Your task to perform on an android device: empty trash in the gmail app Image 0: 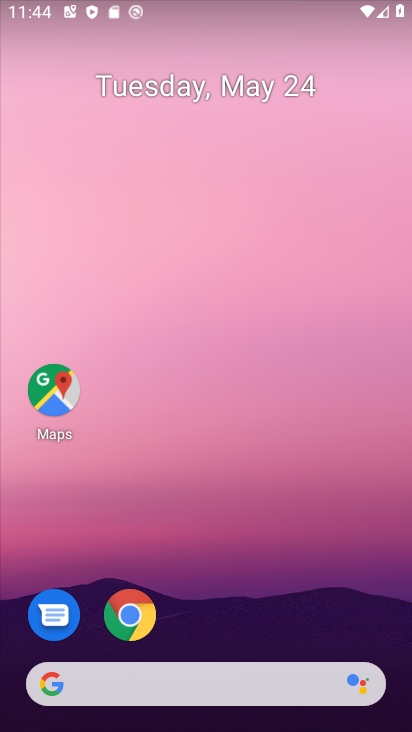
Step 0: drag from (275, 604) to (220, 218)
Your task to perform on an android device: empty trash in the gmail app Image 1: 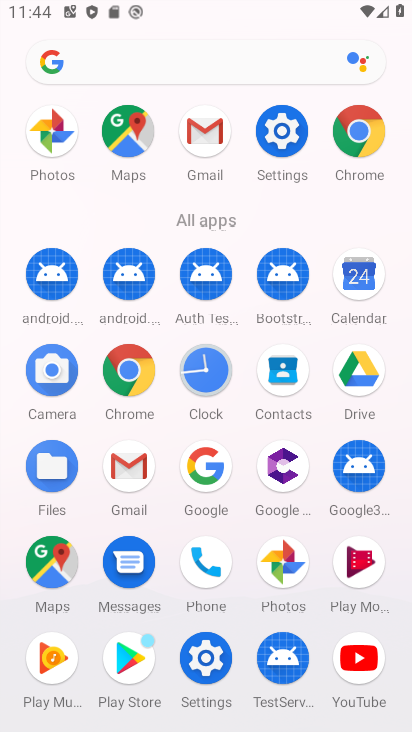
Step 1: click (202, 133)
Your task to perform on an android device: empty trash in the gmail app Image 2: 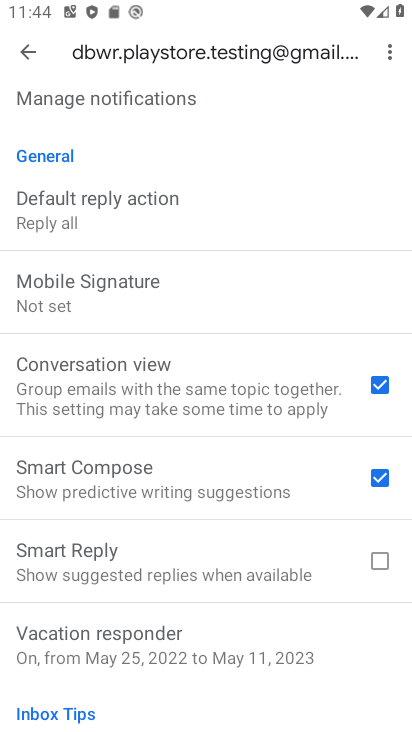
Step 2: press back button
Your task to perform on an android device: empty trash in the gmail app Image 3: 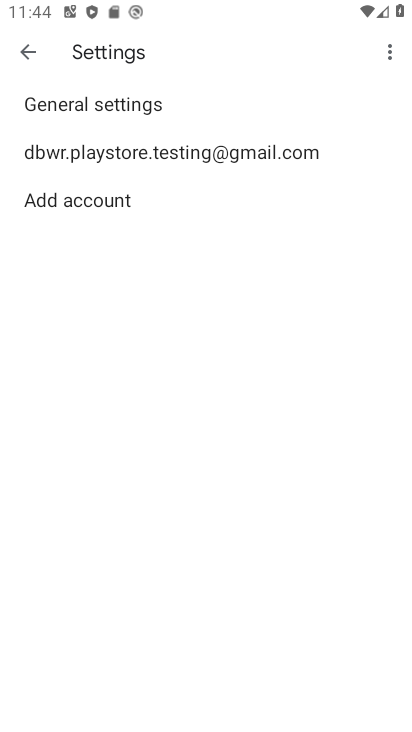
Step 3: press back button
Your task to perform on an android device: empty trash in the gmail app Image 4: 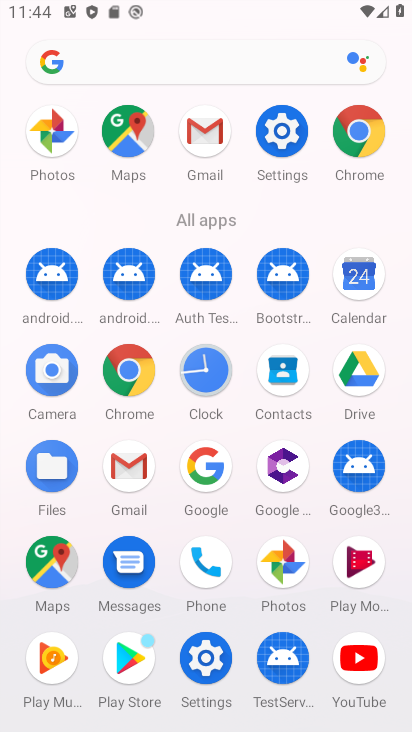
Step 4: click (203, 131)
Your task to perform on an android device: empty trash in the gmail app Image 5: 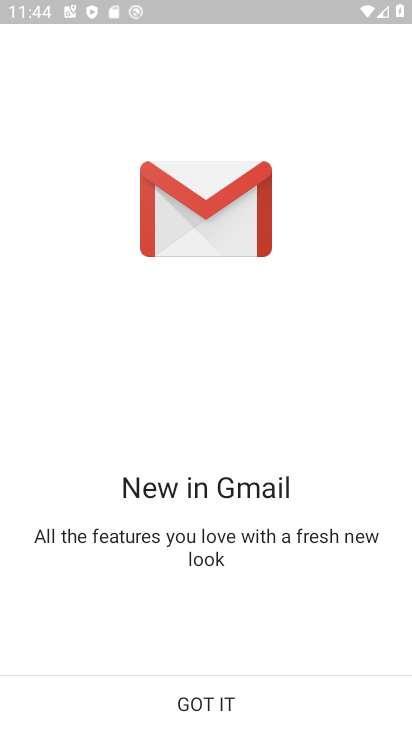
Step 5: click (219, 696)
Your task to perform on an android device: empty trash in the gmail app Image 6: 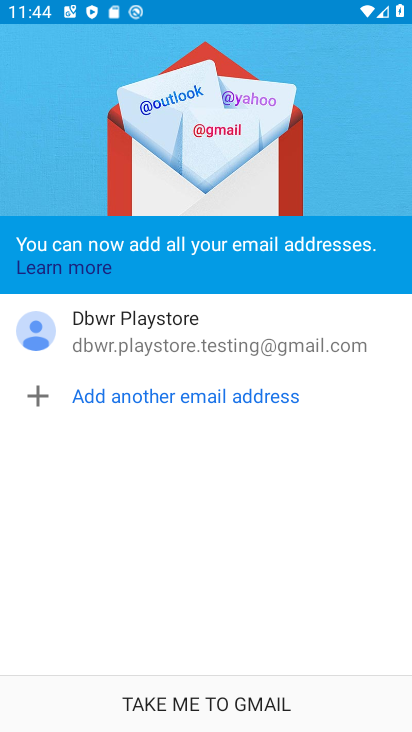
Step 6: click (220, 709)
Your task to perform on an android device: empty trash in the gmail app Image 7: 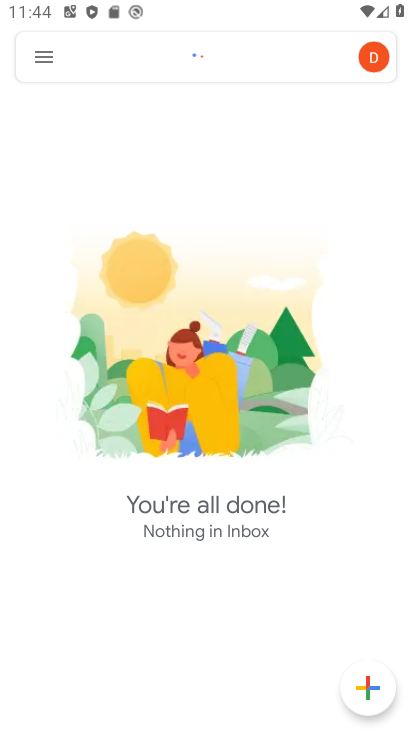
Step 7: click (45, 53)
Your task to perform on an android device: empty trash in the gmail app Image 8: 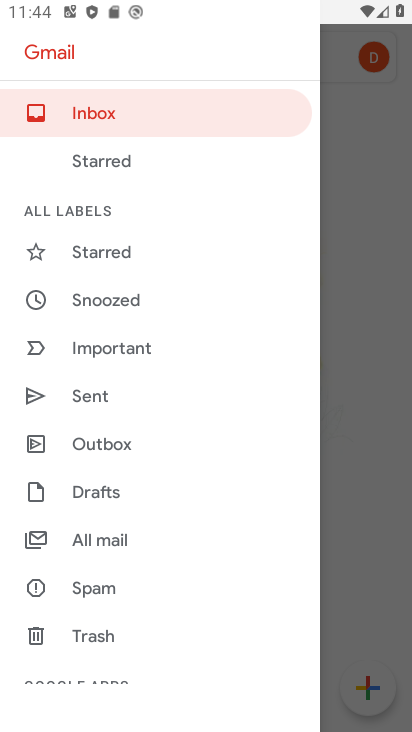
Step 8: drag from (55, 409) to (102, 286)
Your task to perform on an android device: empty trash in the gmail app Image 9: 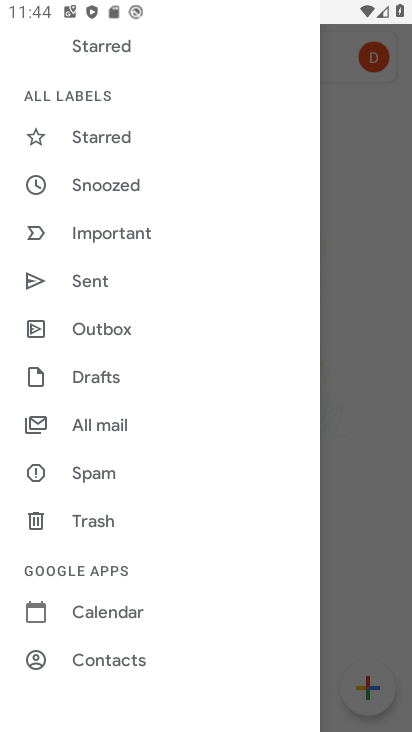
Step 9: click (93, 520)
Your task to perform on an android device: empty trash in the gmail app Image 10: 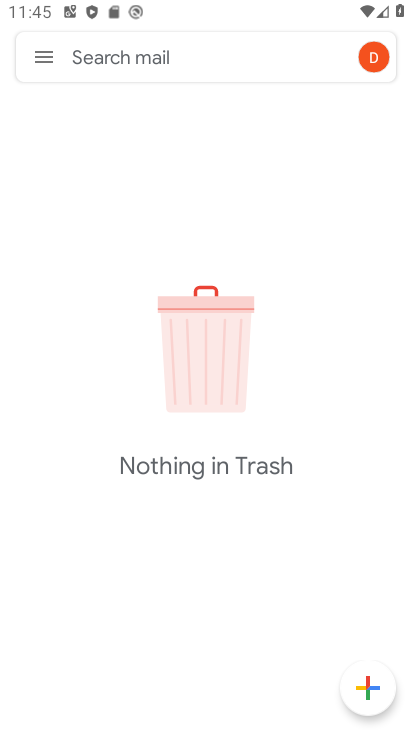
Step 10: task complete